Your task to perform on an android device: Open Maps and search for coffee Image 0: 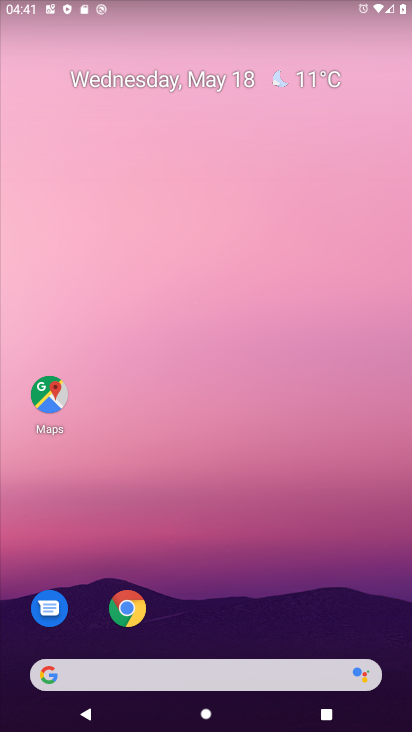
Step 0: click (54, 391)
Your task to perform on an android device: Open Maps and search for coffee Image 1: 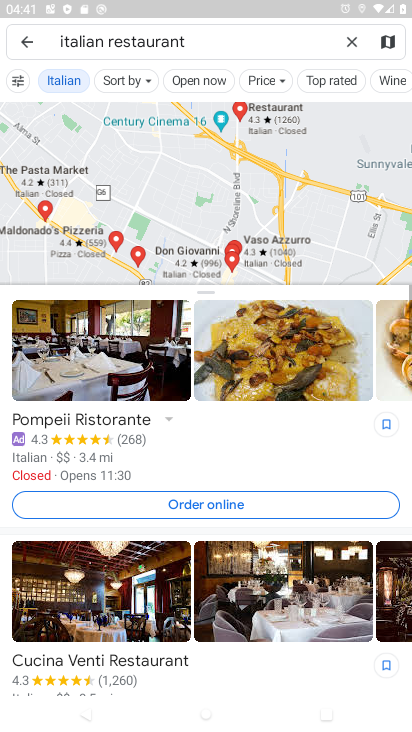
Step 1: click (352, 39)
Your task to perform on an android device: Open Maps and search for coffee Image 2: 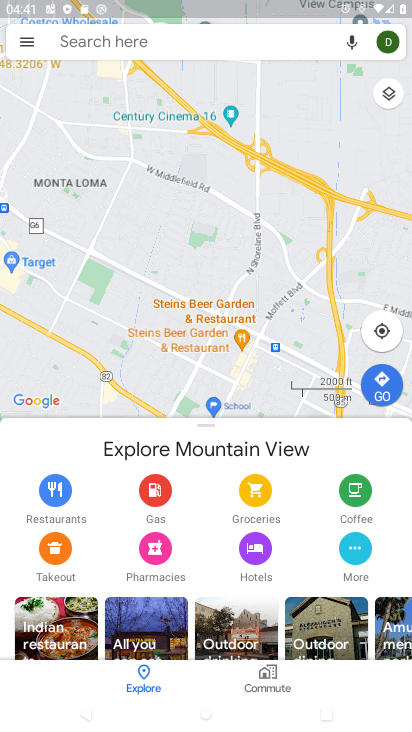
Step 2: click (168, 44)
Your task to perform on an android device: Open Maps and search for coffee Image 3: 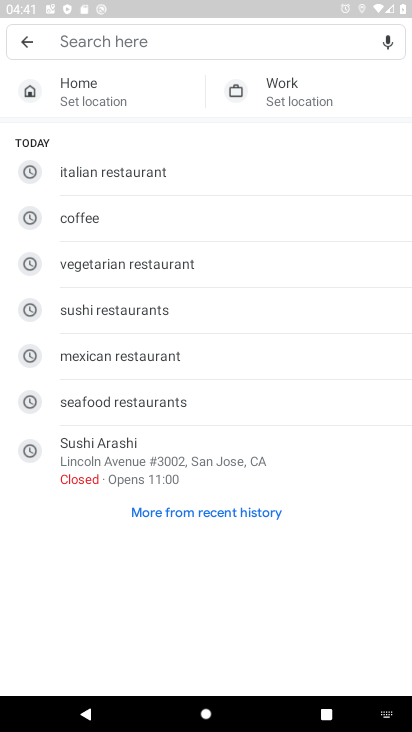
Step 3: click (144, 213)
Your task to perform on an android device: Open Maps and search for coffee Image 4: 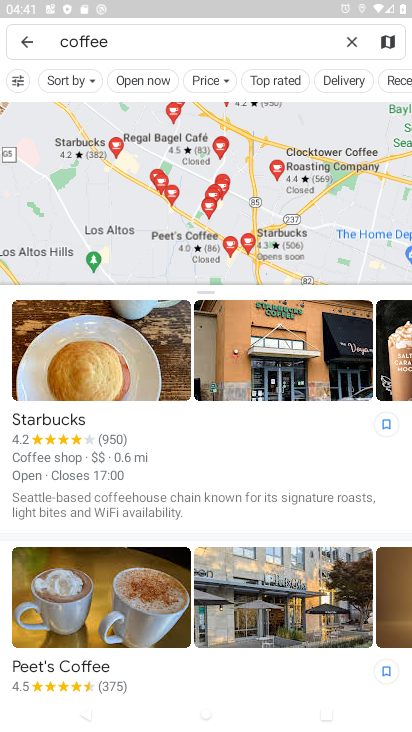
Step 4: task complete